Your task to perform on an android device: What's the news in Cambodia? Image 0: 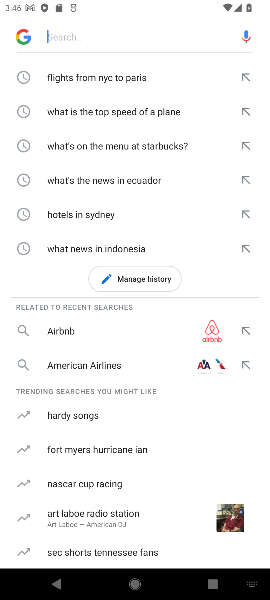
Step 0: press home button
Your task to perform on an android device: What's the news in Cambodia? Image 1: 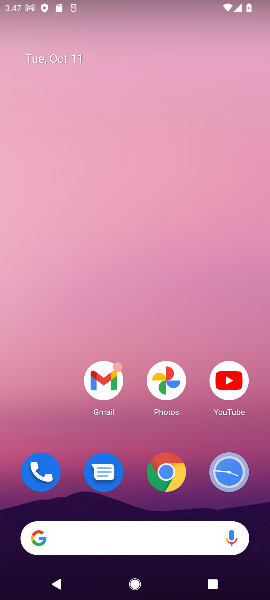
Step 1: click (118, 538)
Your task to perform on an android device: What's the news in Cambodia? Image 2: 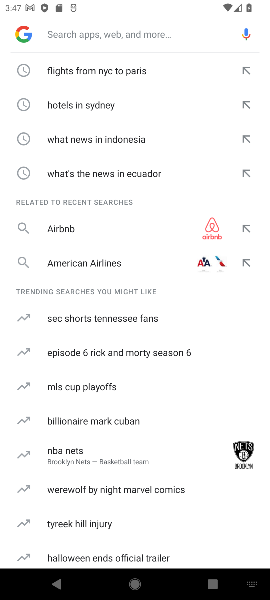
Step 2: type "What's the news in Cambodia?"
Your task to perform on an android device: What's the news in Cambodia? Image 3: 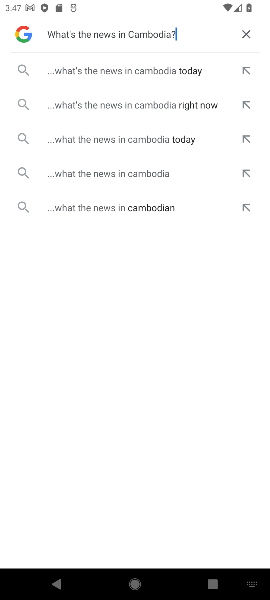
Step 3: click (150, 73)
Your task to perform on an android device: What's the news in Cambodia? Image 4: 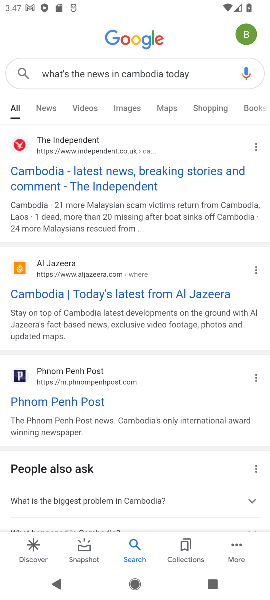
Step 4: task complete